Your task to perform on an android device: Open Google Maps and go to "Timeline" Image 0: 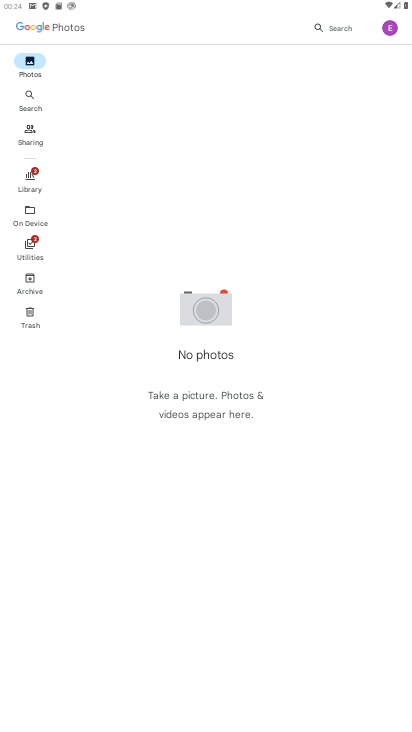
Step 0: press home button
Your task to perform on an android device: Open Google Maps and go to "Timeline" Image 1: 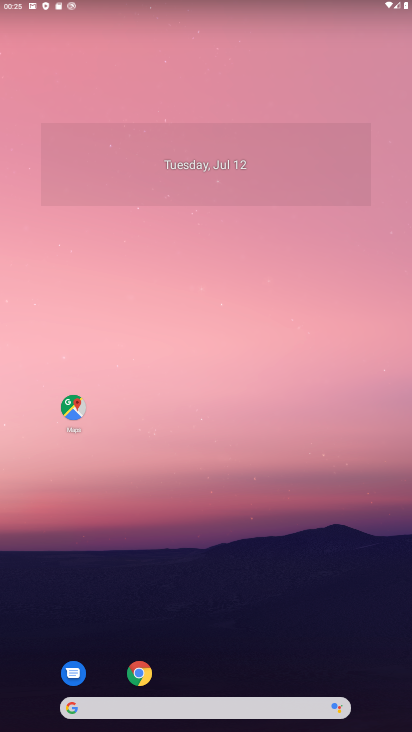
Step 1: drag from (304, 608) to (325, 94)
Your task to perform on an android device: Open Google Maps and go to "Timeline" Image 2: 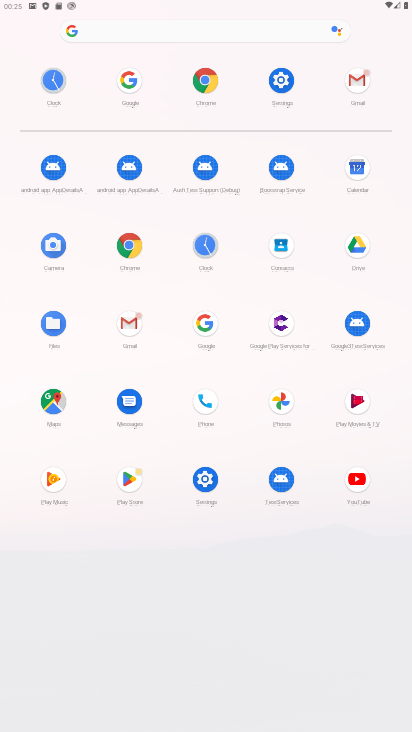
Step 2: click (50, 403)
Your task to perform on an android device: Open Google Maps and go to "Timeline" Image 3: 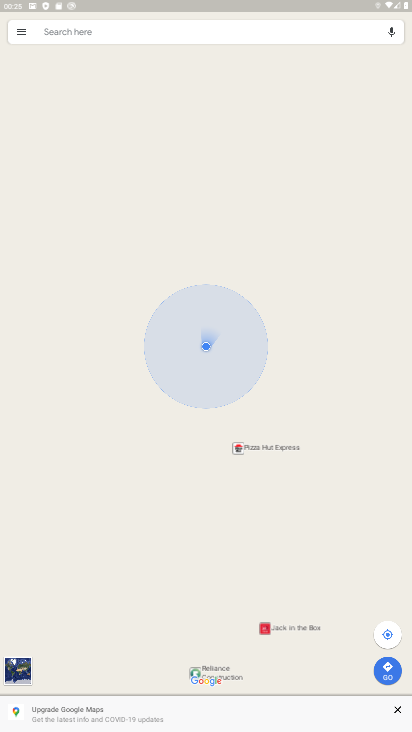
Step 3: click (23, 30)
Your task to perform on an android device: Open Google Maps and go to "Timeline" Image 4: 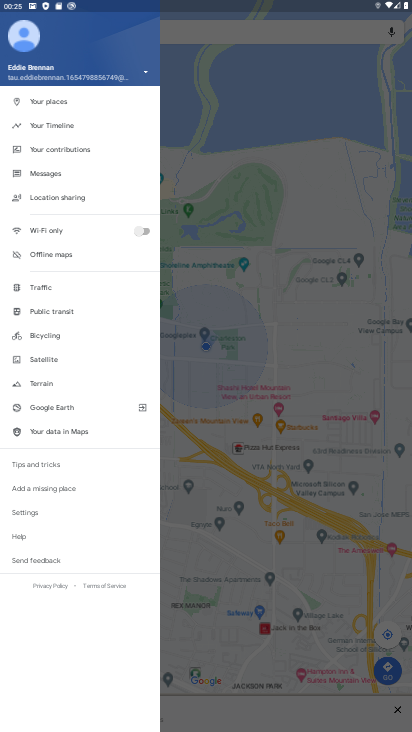
Step 4: drag from (21, 33) to (65, 126)
Your task to perform on an android device: Open Google Maps and go to "Timeline" Image 5: 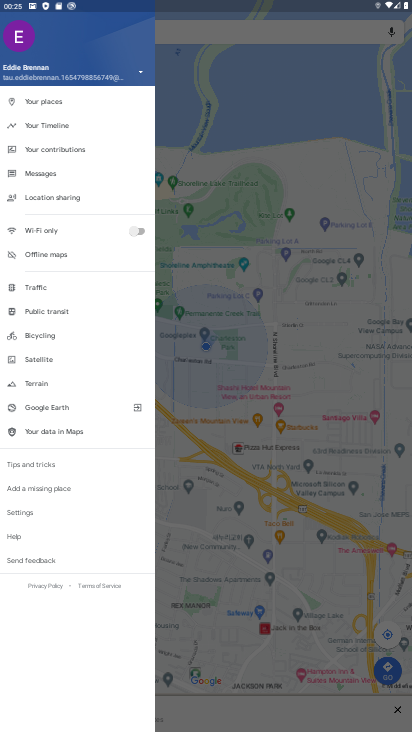
Step 5: click (63, 125)
Your task to perform on an android device: Open Google Maps and go to "Timeline" Image 6: 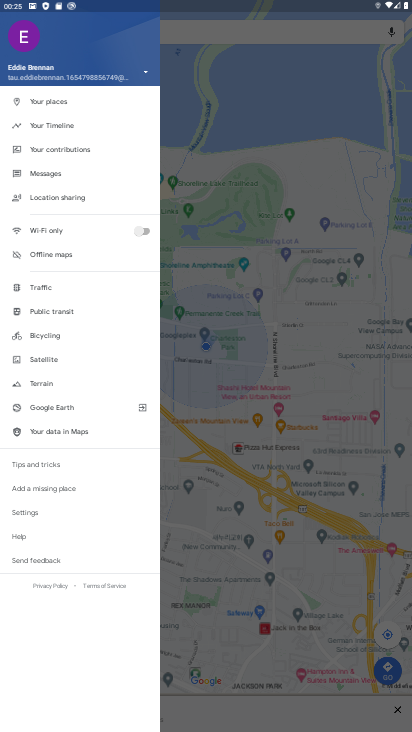
Step 6: click (42, 125)
Your task to perform on an android device: Open Google Maps and go to "Timeline" Image 7: 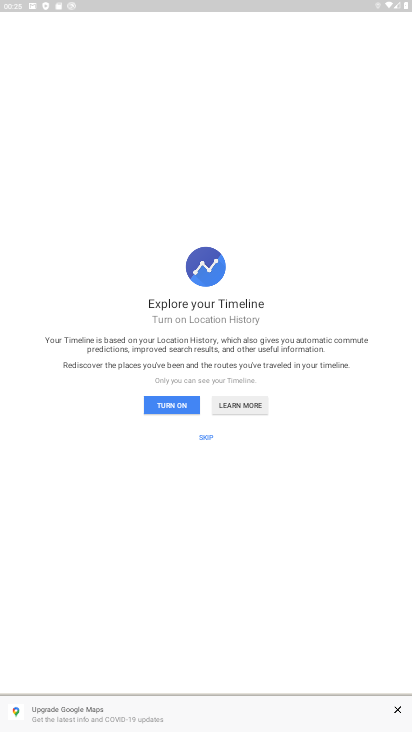
Step 7: click (183, 408)
Your task to perform on an android device: Open Google Maps and go to "Timeline" Image 8: 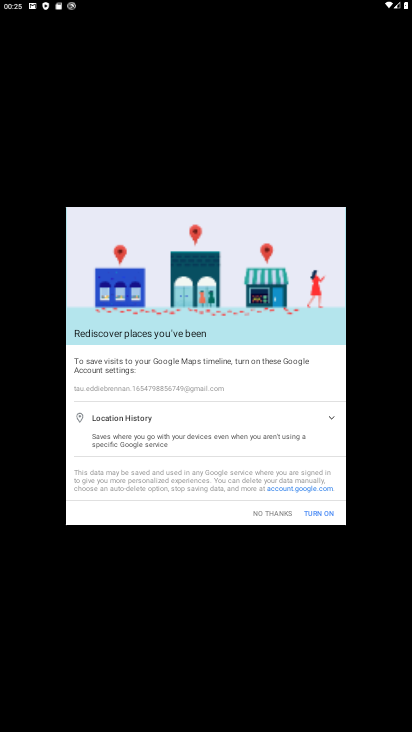
Step 8: click (322, 509)
Your task to perform on an android device: Open Google Maps and go to "Timeline" Image 9: 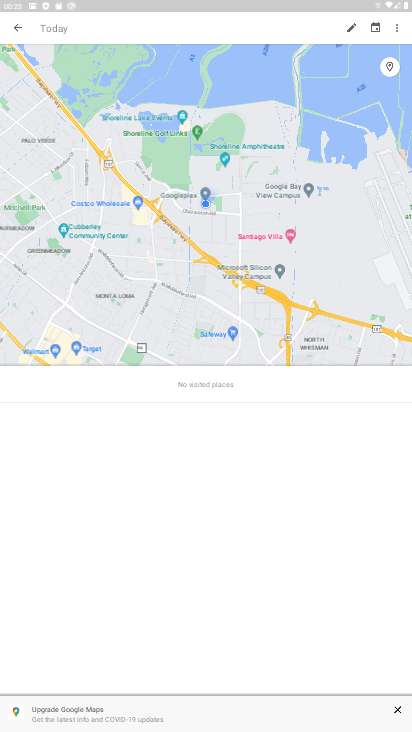
Step 9: task complete